Your task to perform on an android device: move an email to a new category in the gmail app Image 0: 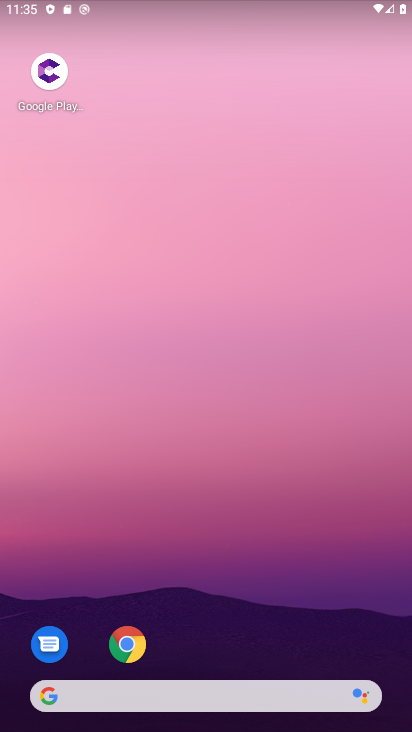
Step 0: drag from (188, 666) to (274, 180)
Your task to perform on an android device: move an email to a new category in the gmail app Image 1: 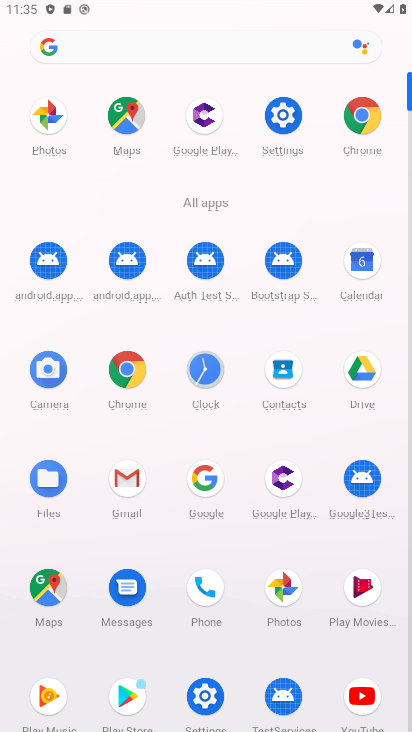
Step 1: click (122, 491)
Your task to perform on an android device: move an email to a new category in the gmail app Image 2: 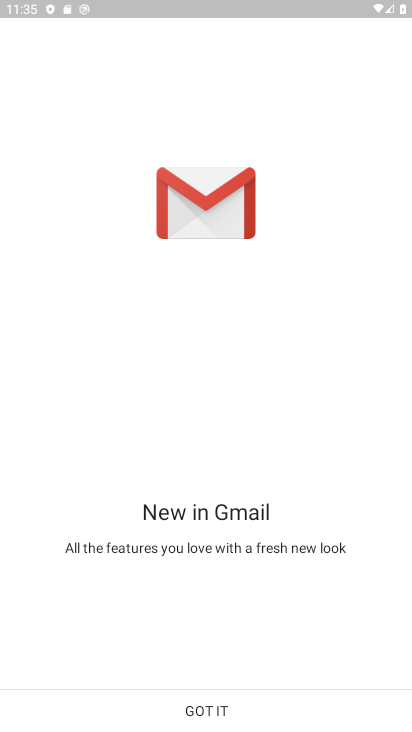
Step 2: click (212, 731)
Your task to perform on an android device: move an email to a new category in the gmail app Image 3: 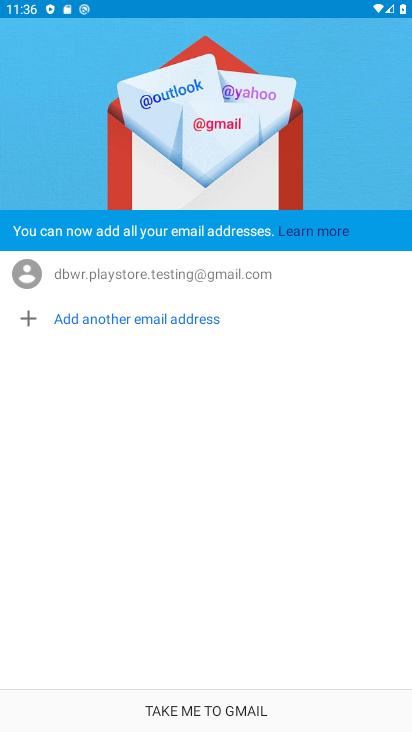
Step 3: click (211, 713)
Your task to perform on an android device: move an email to a new category in the gmail app Image 4: 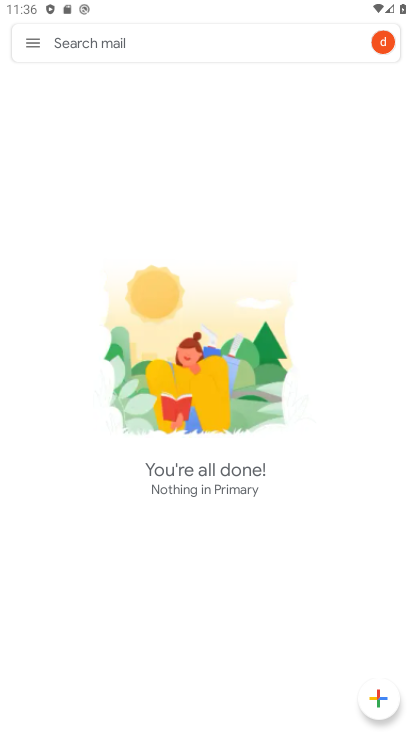
Step 4: click (38, 57)
Your task to perform on an android device: move an email to a new category in the gmail app Image 5: 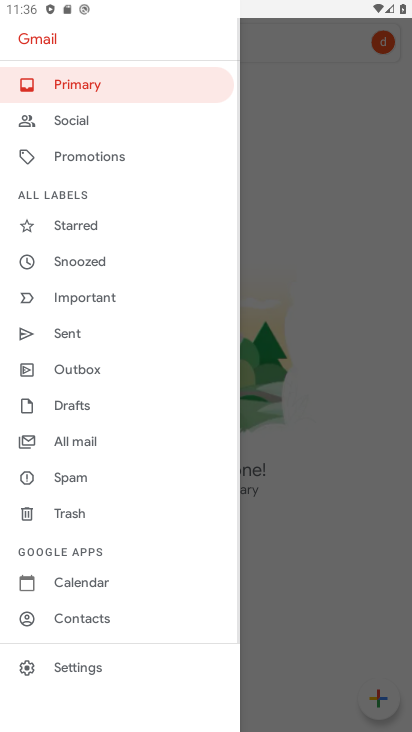
Step 5: click (119, 445)
Your task to perform on an android device: move an email to a new category in the gmail app Image 6: 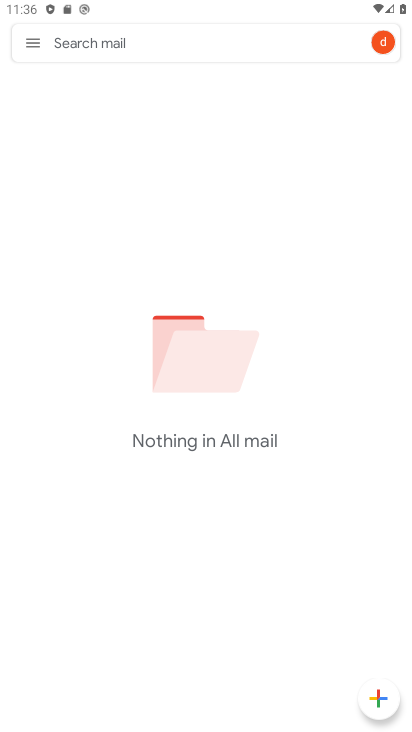
Step 6: task complete